Your task to perform on an android device: turn vacation reply on in the gmail app Image 0: 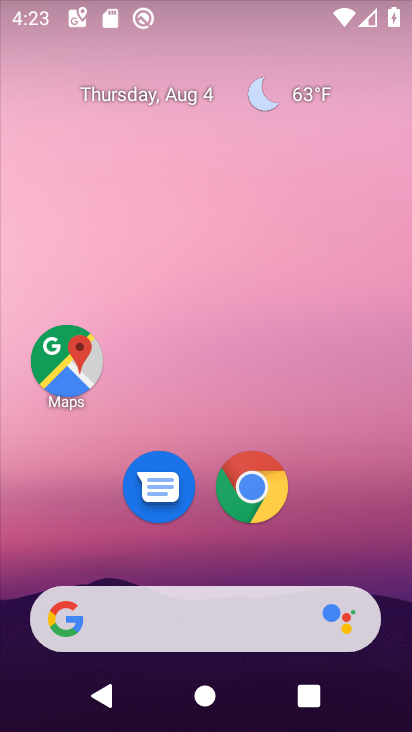
Step 0: click (144, 609)
Your task to perform on an android device: turn vacation reply on in the gmail app Image 1: 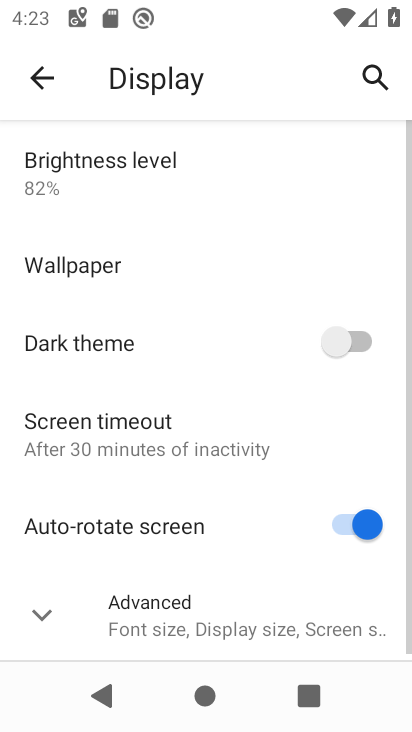
Step 1: press back button
Your task to perform on an android device: turn vacation reply on in the gmail app Image 2: 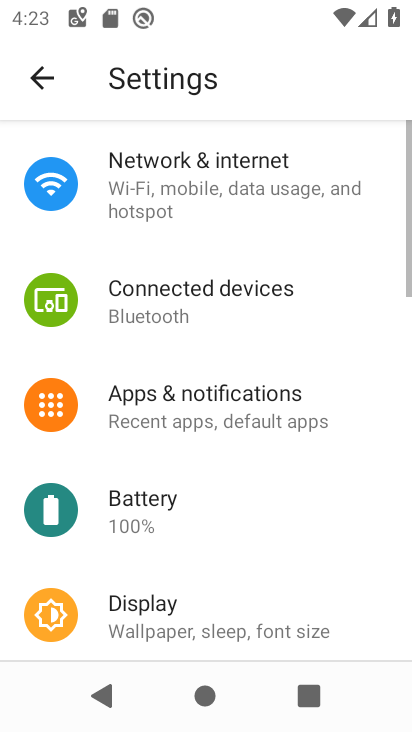
Step 2: press back button
Your task to perform on an android device: turn vacation reply on in the gmail app Image 3: 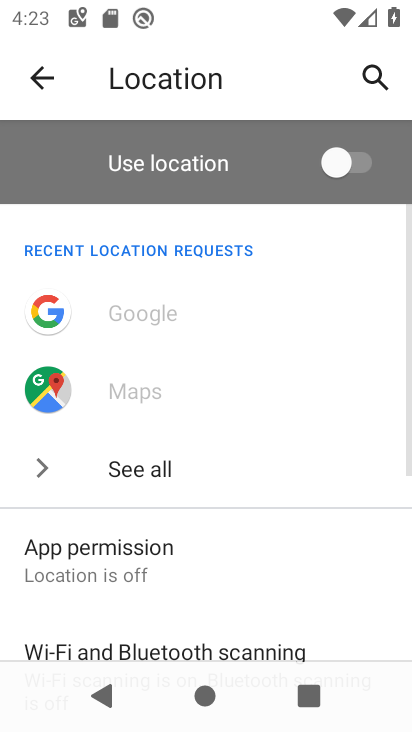
Step 3: press back button
Your task to perform on an android device: turn vacation reply on in the gmail app Image 4: 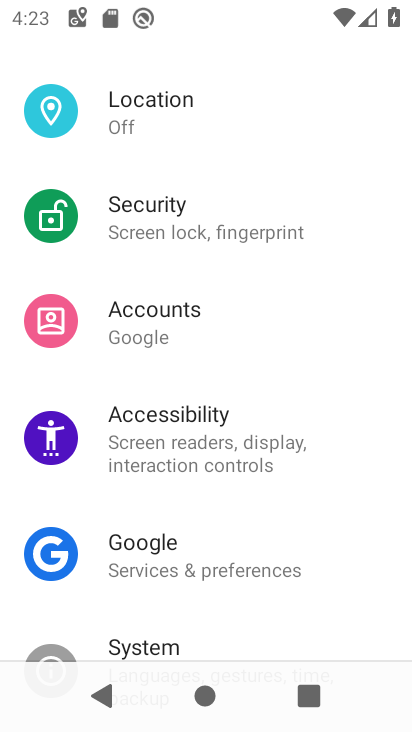
Step 4: press back button
Your task to perform on an android device: turn vacation reply on in the gmail app Image 5: 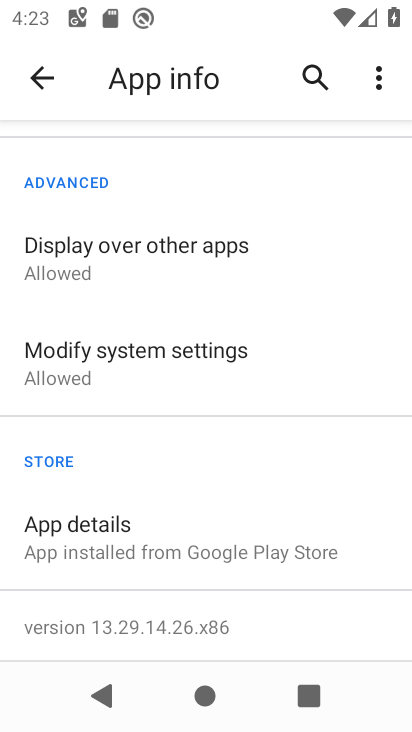
Step 5: press home button
Your task to perform on an android device: turn vacation reply on in the gmail app Image 6: 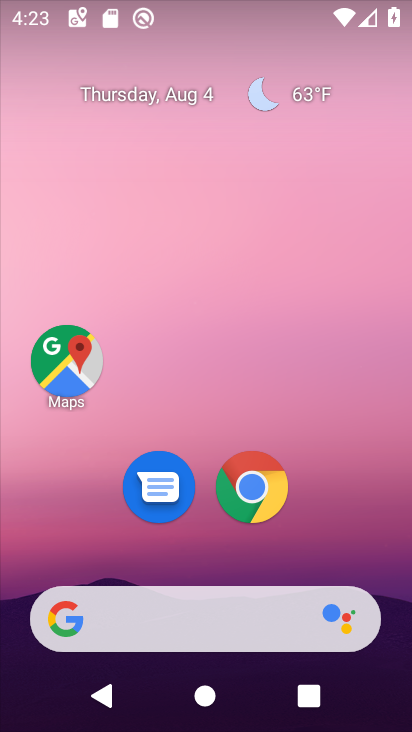
Step 6: drag from (120, 460) to (241, 39)
Your task to perform on an android device: turn vacation reply on in the gmail app Image 7: 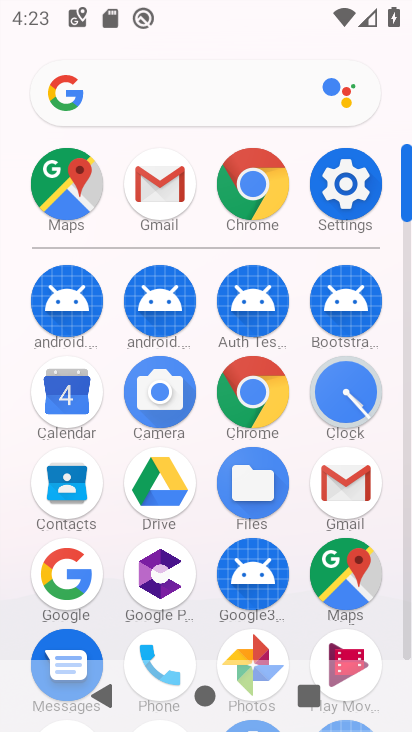
Step 7: click (171, 175)
Your task to perform on an android device: turn vacation reply on in the gmail app Image 8: 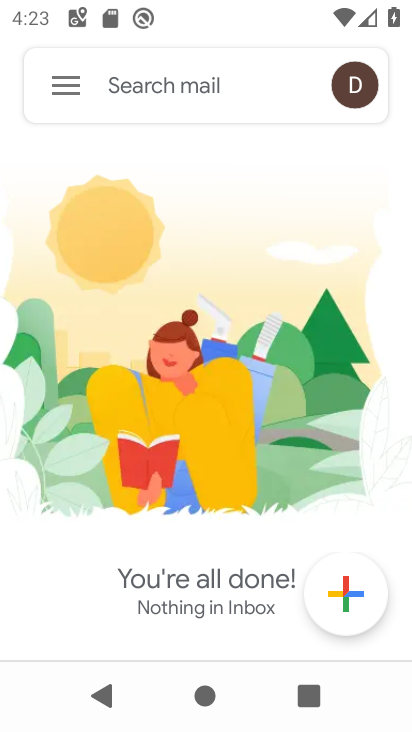
Step 8: click (56, 80)
Your task to perform on an android device: turn vacation reply on in the gmail app Image 9: 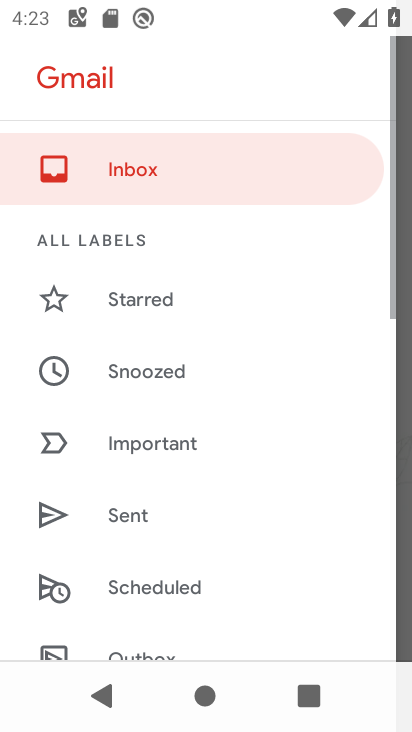
Step 9: drag from (207, 623) to (311, 39)
Your task to perform on an android device: turn vacation reply on in the gmail app Image 10: 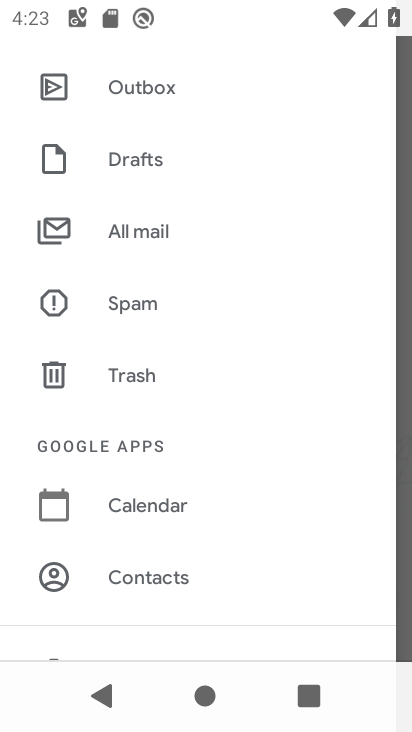
Step 10: drag from (136, 597) to (251, 40)
Your task to perform on an android device: turn vacation reply on in the gmail app Image 11: 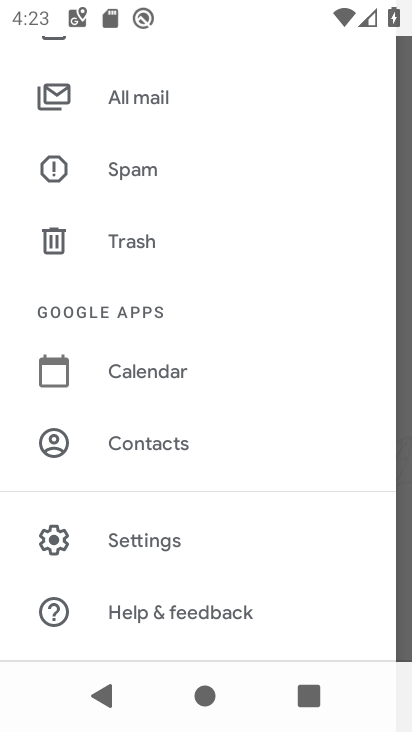
Step 11: click (134, 525)
Your task to perform on an android device: turn vacation reply on in the gmail app Image 12: 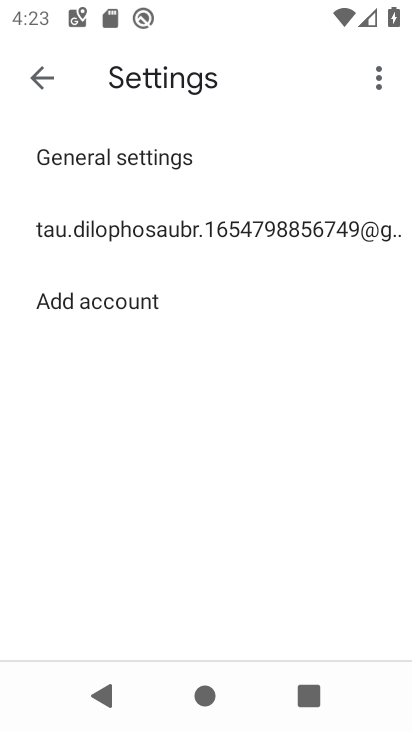
Step 12: click (130, 211)
Your task to perform on an android device: turn vacation reply on in the gmail app Image 13: 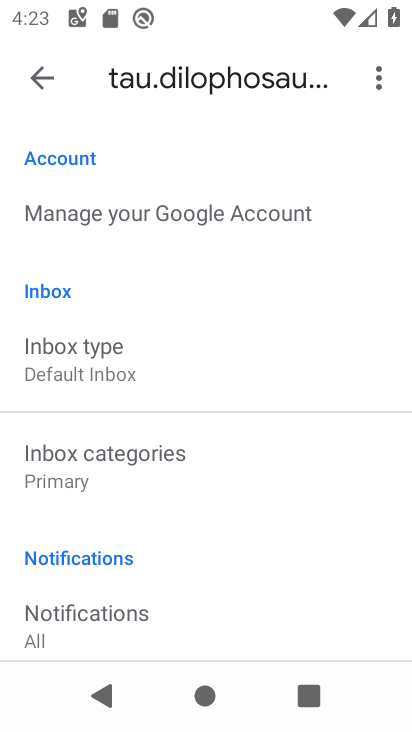
Step 13: drag from (123, 584) to (235, 4)
Your task to perform on an android device: turn vacation reply on in the gmail app Image 14: 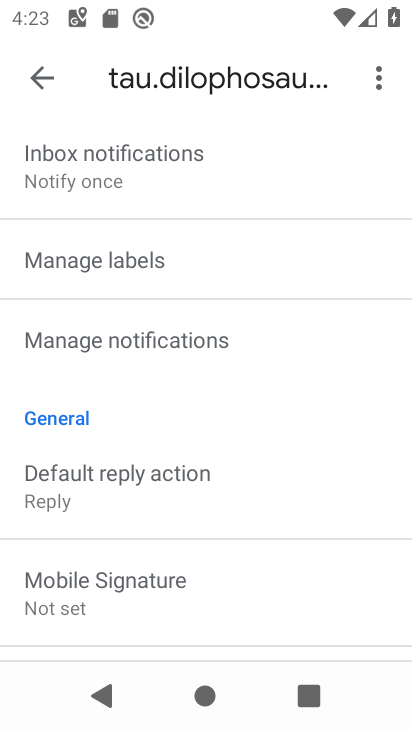
Step 14: drag from (146, 654) to (275, 25)
Your task to perform on an android device: turn vacation reply on in the gmail app Image 15: 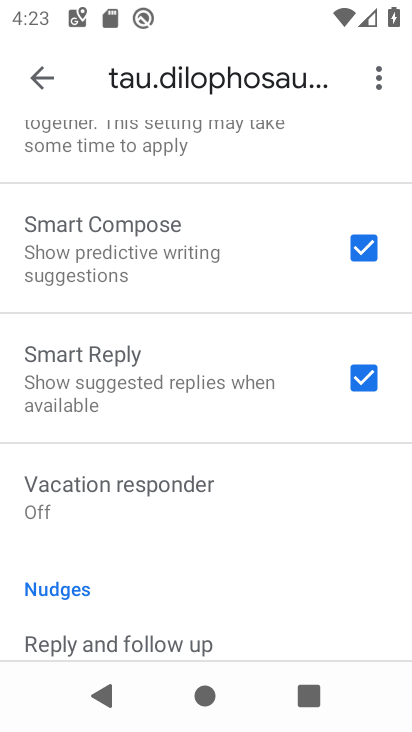
Step 15: drag from (188, 243) to (113, 648)
Your task to perform on an android device: turn vacation reply on in the gmail app Image 16: 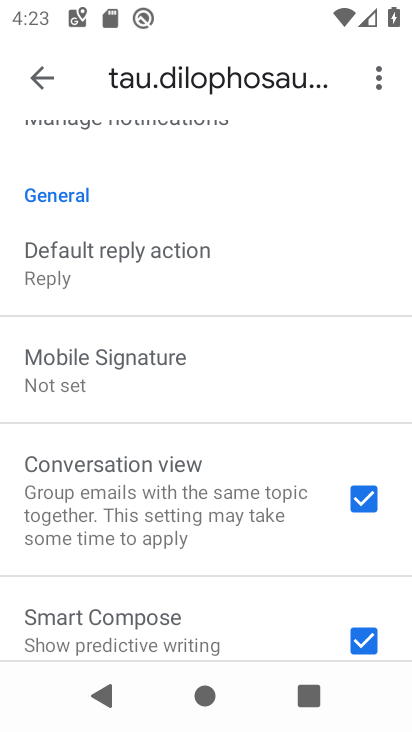
Step 16: drag from (141, 199) to (214, 26)
Your task to perform on an android device: turn vacation reply on in the gmail app Image 17: 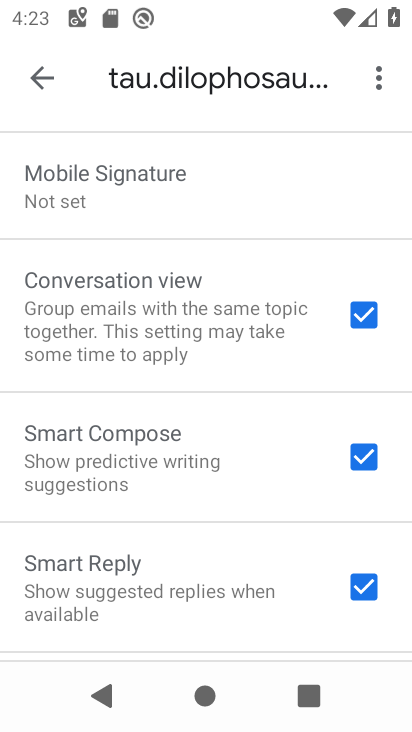
Step 17: drag from (142, 591) to (281, 15)
Your task to perform on an android device: turn vacation reply on in the gmail app Image 18: 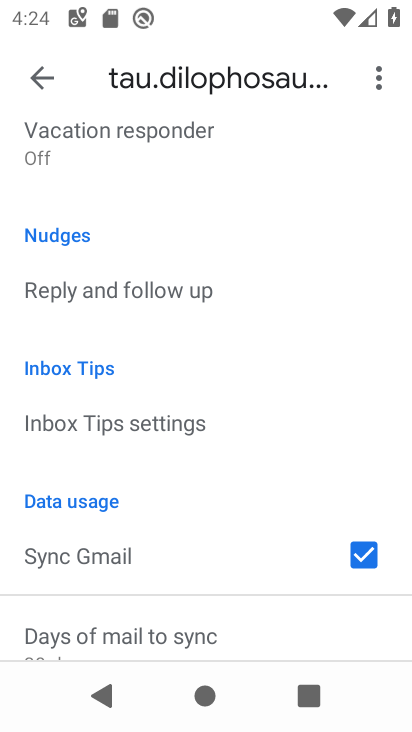
Step 18: click (124, 126)
Your task to perform on an android device: turn vacation reply on in the gmail app Image 19: 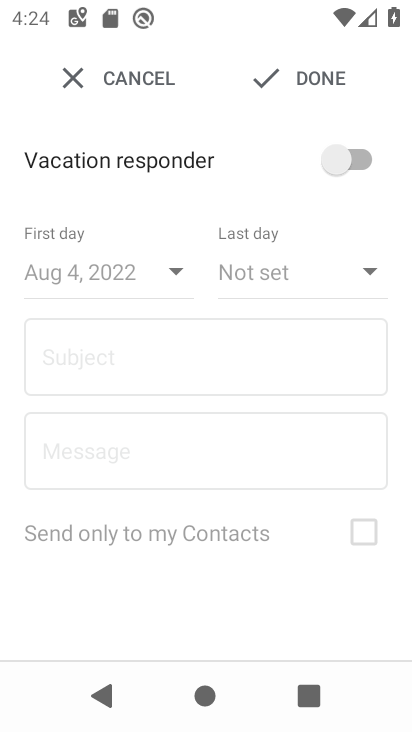
Step 19: click (367, 165)
Your task to perform on an android device: turn vacation reply on in the gmail app Image 20: 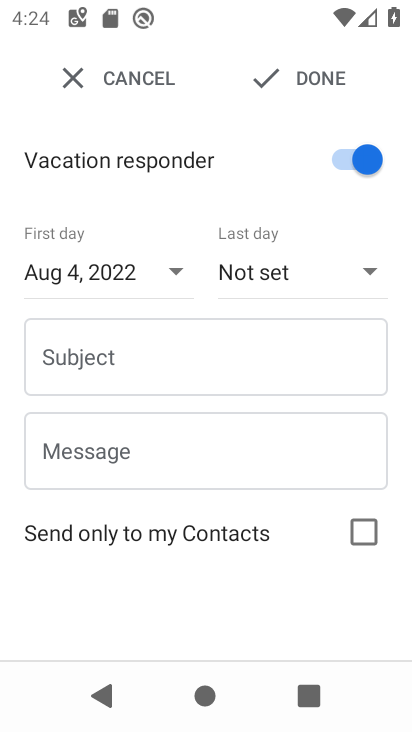
Step 20: task complete